Your task to perform on an android device: turn on priority inbox in the gmail app Image 0: 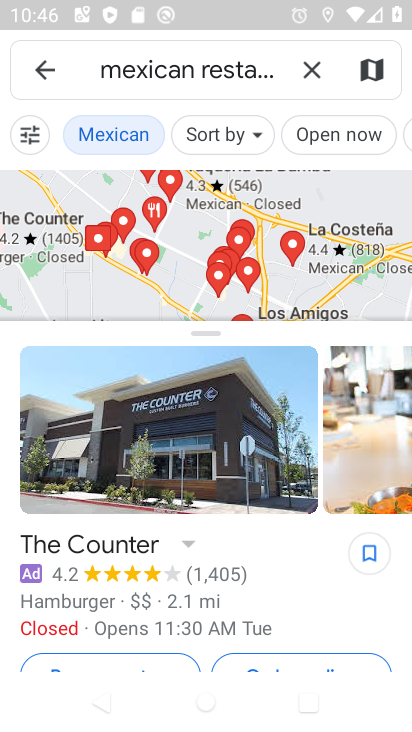
Step 0: press home button
Your task to perform on an android device: turn on priority inbox in the gmail app Image 1: 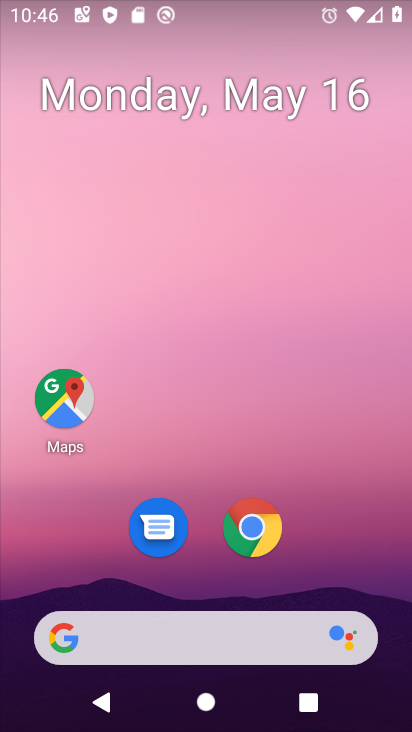
Step 1: drag from (374, 553) to (312, 10)
Your task to perform on an android device: turn on priority inbox in the gmail app Image 2: 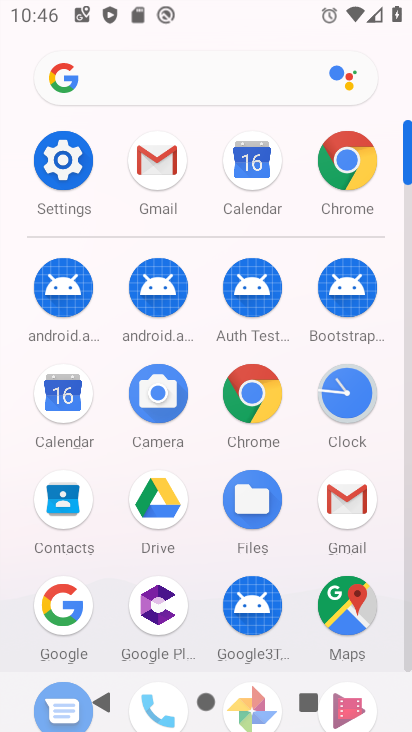
Step 2: click (153, 161)
Your task to perform on an android device: turn on priority inbox in the gmail app Image 3: 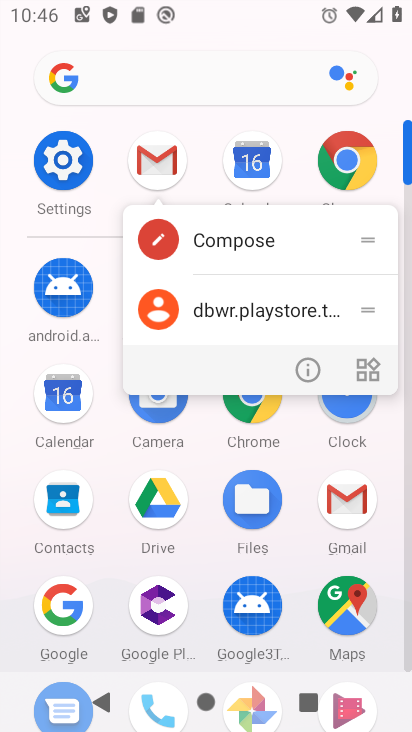
Step 3: click (145, 153)
Your task to perform on an android device: turn on priority inbox in the gmail app Image 4: 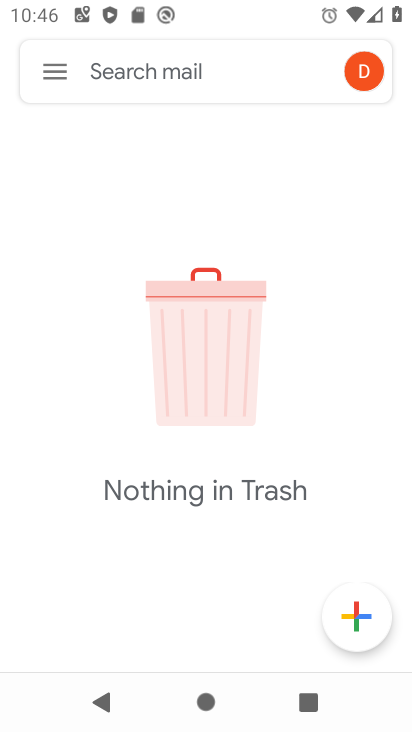
Step 4: click (50, 74)
Your task to perform on an android device: turn on priority inbox in the gmail app Image 5: 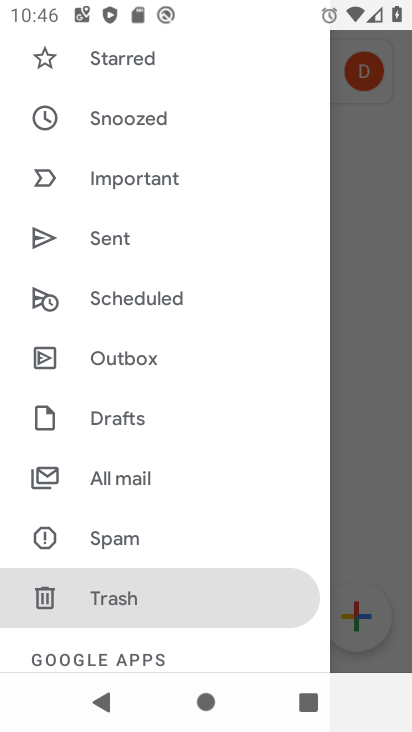
Step 5: drag from (213, 538) to (116, 80)
Your task to perform on an android device: turn on priority inbox in the gmail app Image 6: 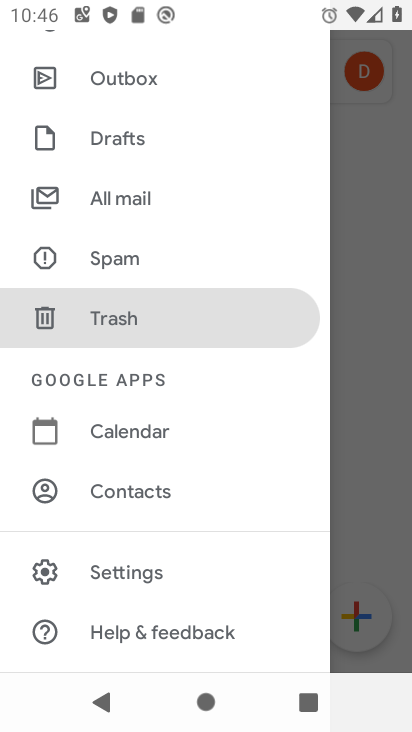
Step 6: click (101, 584)
Your task to perform on an android device: turn on priority inbox in the gmail app Image 7: 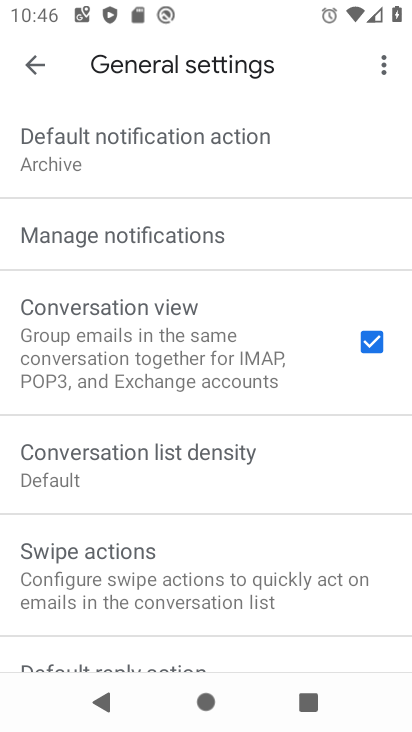
Step 7: click (37, 52)
Your task to perform on an android device: turn on priority inbox in the gmail app Image 8: 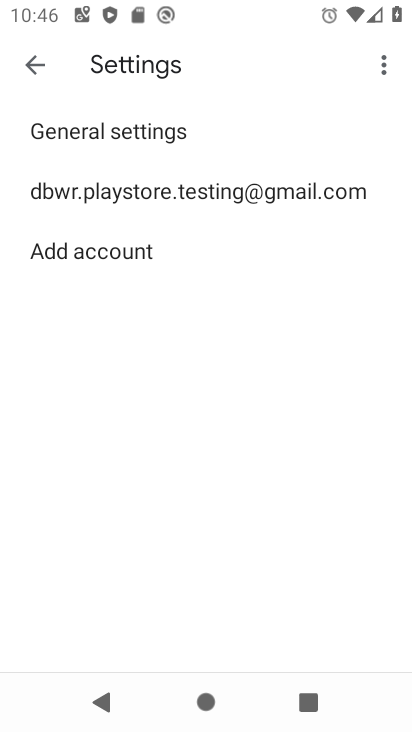
Step 8: click (38, 180)
Your task to perform on an android device: turn on priority inbox in the gmail app Image 9: 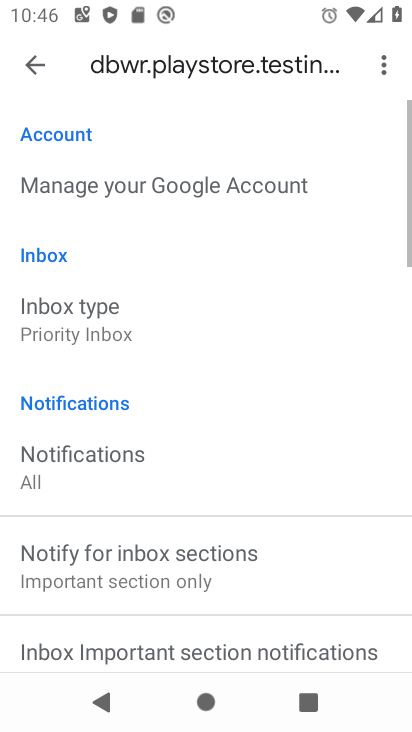
Step 9: click (54, 309)
Your task to perform on an android device: turn on priority inbox in the gmail app Image 10: 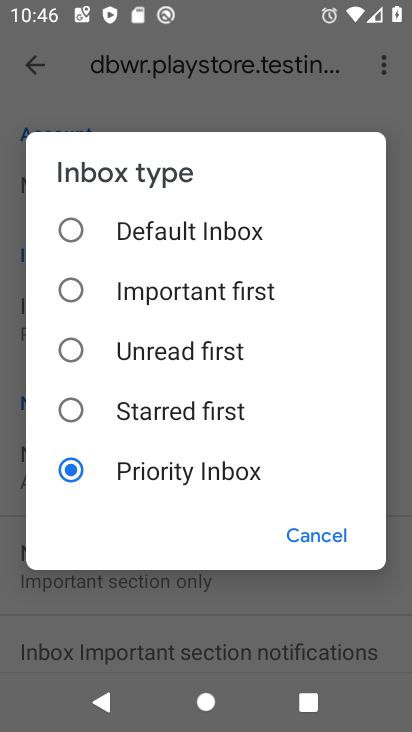
Step 10: task complete